Your task to perform on an android device: check out phone information Image 0: 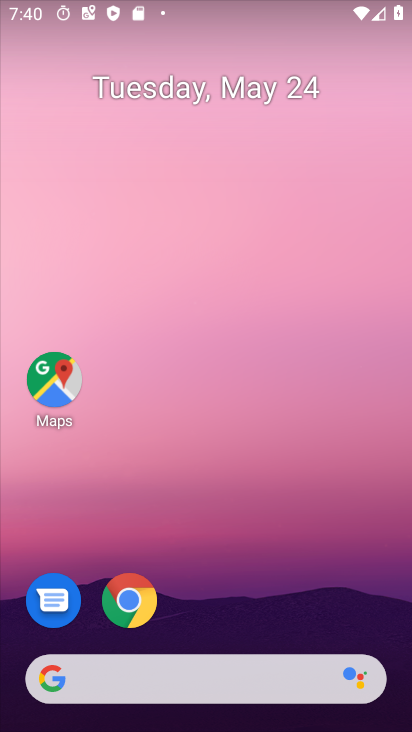
Step 0: drag from (234, 596) to (285, 21)
Your task to perform on an android device: check out phone information Image 1: 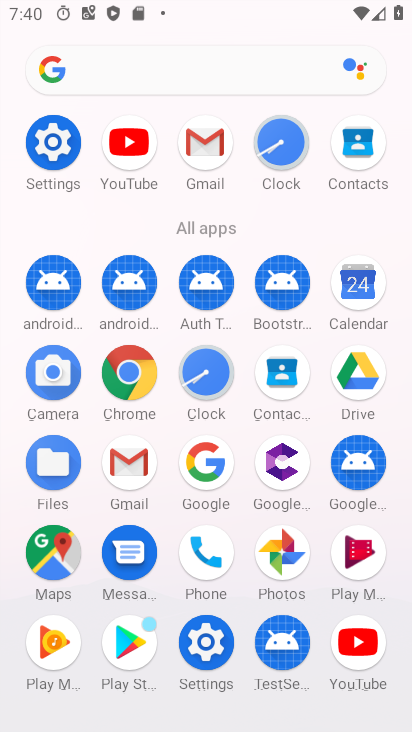
Step 1: click (54, 142)
Your task to perform on an android device: check out phone information Image 2: 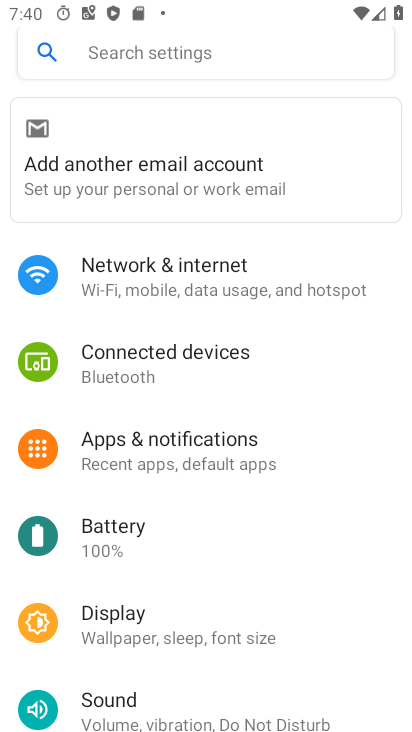
Step 2: drag from (126, 699) to (252, 63)
Your task to perform on an android device: check out phone information Image 3: 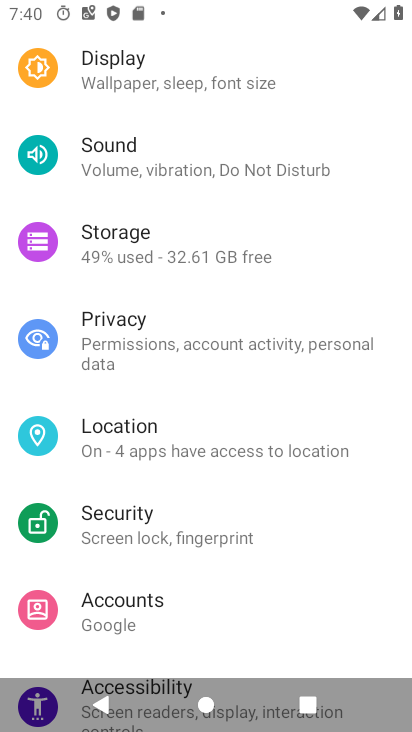
Step 3: drag from (146, 613) to (239, 75)
Your task to perform on an android device: check out phone information Image 4: 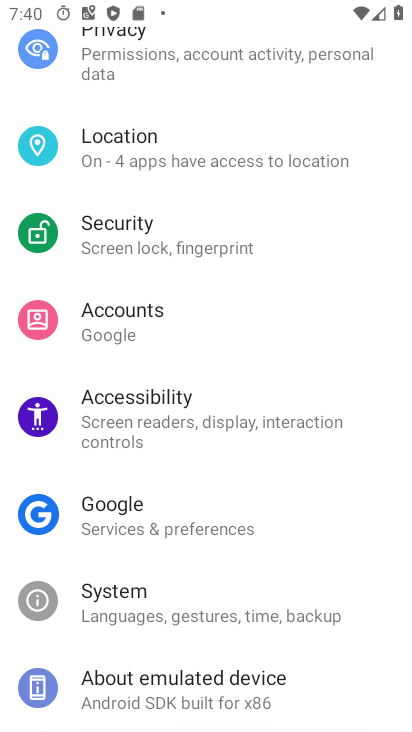
Step 4: drag from (186, 622) to (236, 145)
Your task to perform on an android device: check out phone information Image 5: 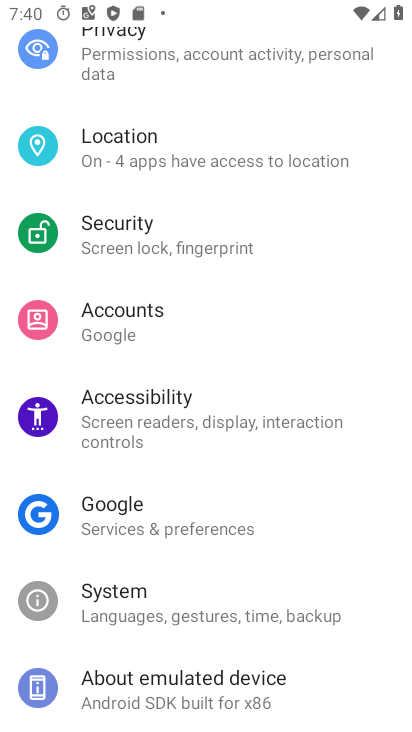
Step 5: click (180, 690)
Your task to perform on an android device: check out phone information Image 6: 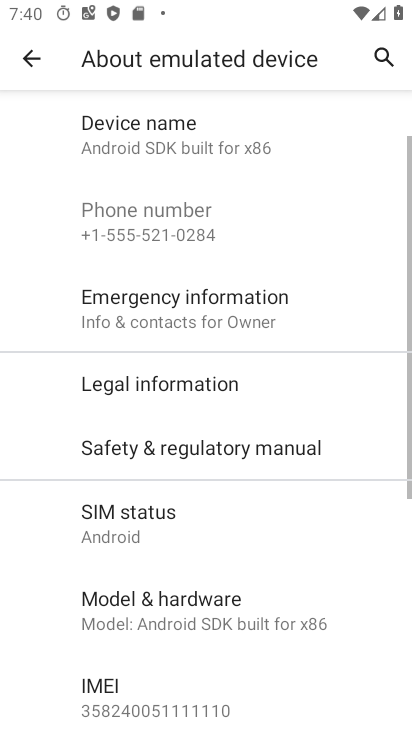
Step 6: task complete